Your task to perform on an android device: find snoozed emails in the gmail app Image 0: 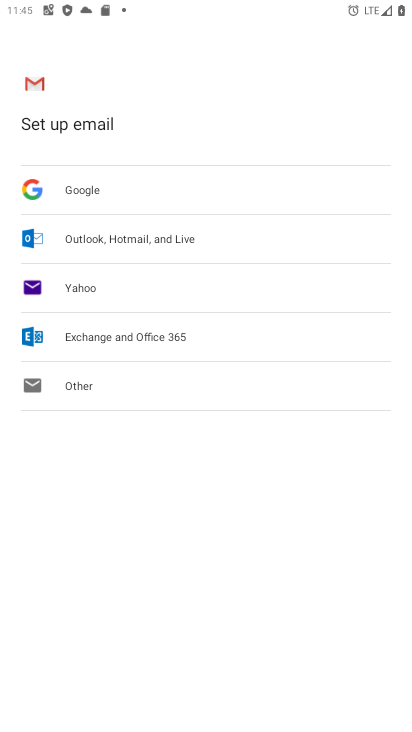
Step 0: press home button
Your task to perform on an android device: find snoozed emails in the gmail app Image 1: 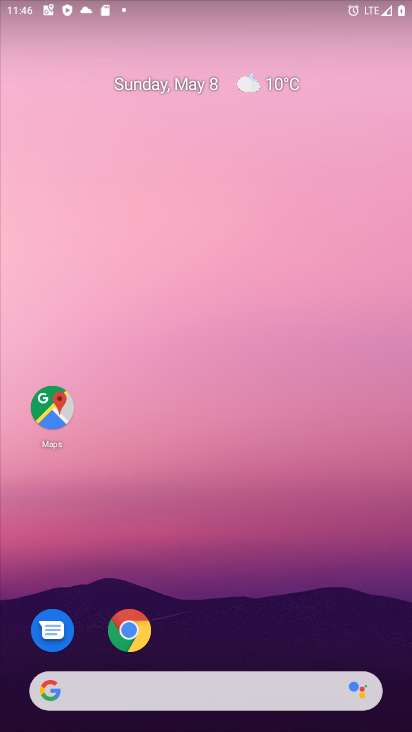
Step 1: drag from (274, 610) to (207, 50)
Your task to perform on an android device: find snoozed emails in the gmail app Image 2: 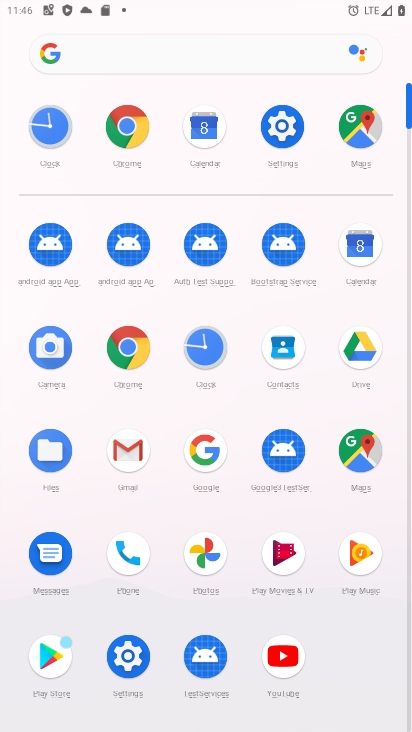
Step 2: click (124, 455)
Your task to perform on an android device: find snoozed emails in the gmail app Image 3: 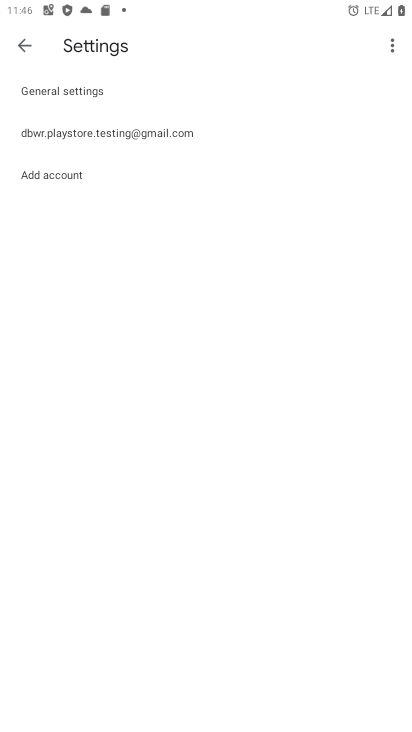
Step 3: click (146, 128)
Your task to perform on an android device: find snoozed emails in the gmail app Image 4: 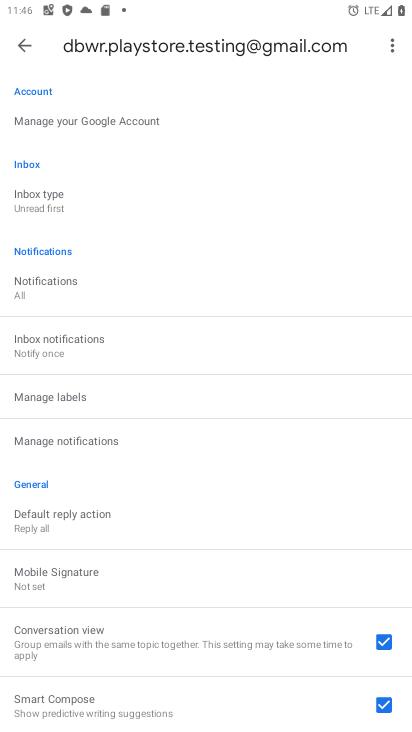
Step 4: click (21, 37)
Your task to perform on an android device: find snoozed emails in the gmail app Image 5: 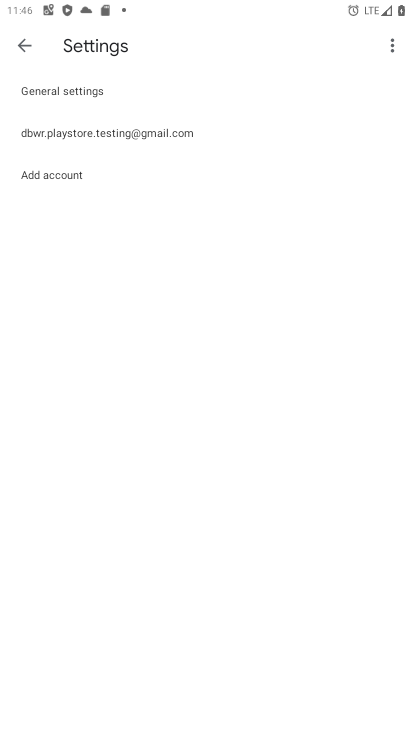
Step 5: click (21, 37)
Your task to perform on an android device: find snoozed emails in the gmail app Image 6: 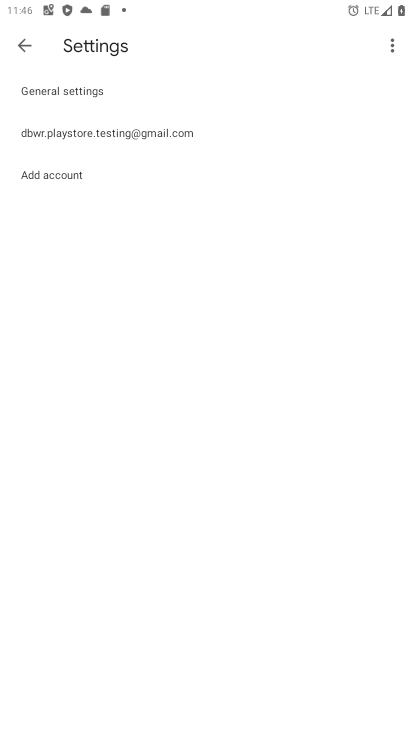
Step 6: click (21, 37)
Your task to perform on an android device: find snoozed emails in the gmail app Image 7: 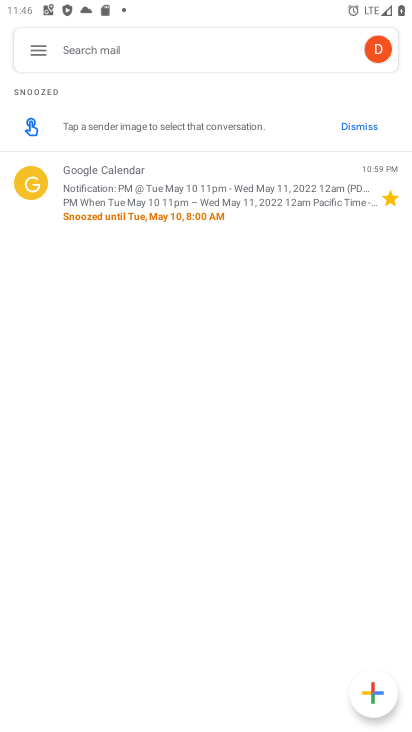
Step 7: click (21, 37)
Your task to perform on an android device: find snoozed emails in the gmail app Image 8: 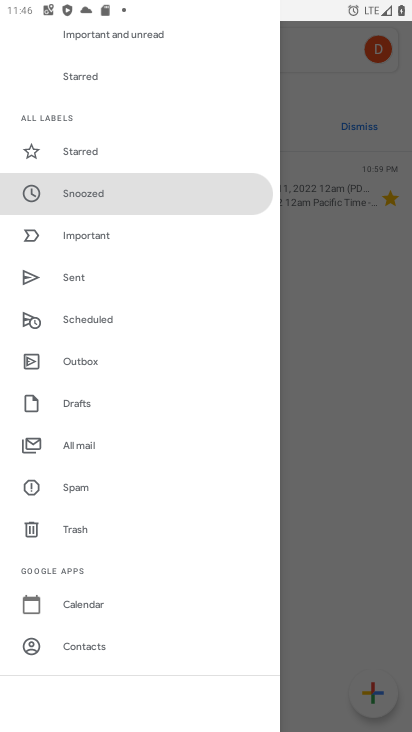
Step 8: click (79, 187)
Your task to perform on an android device: find snoozed emails in the gmail app Image 9: 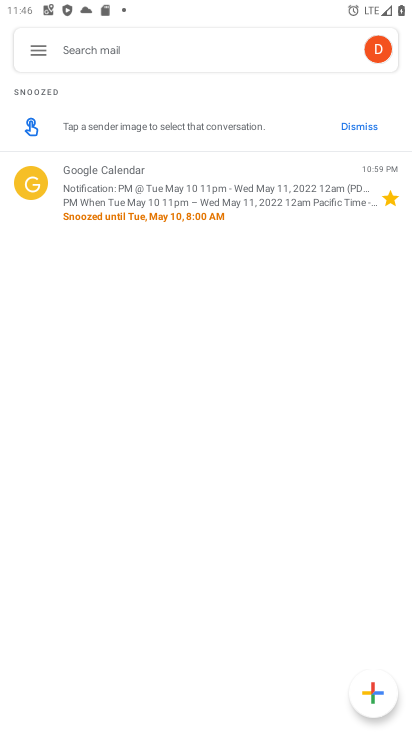
Step 9: task complete